Your task to perform on an android device: check battery use Image 0: 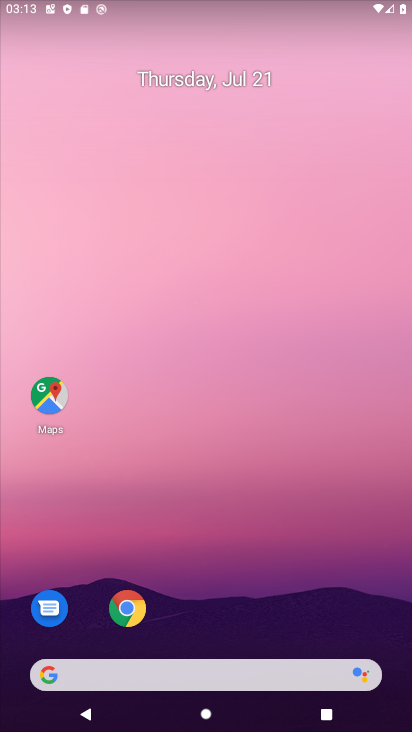
Step 0: drag from (364, 433) to (396, 193)
Your task to perform on an android device: check battery use Image 1: 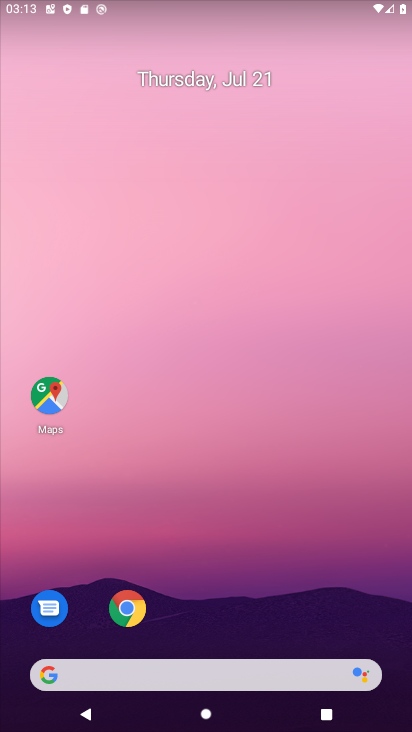
Step 1: drag from (257, 641) to (352, 257)
Your task to perform on an android device: check battery use Image 2: 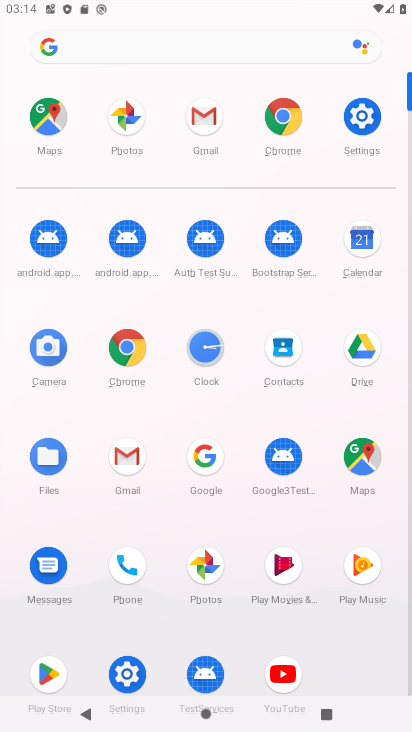
Step 2: click (358, 108)
Your task to perform on an android device: check battery use Image 3: 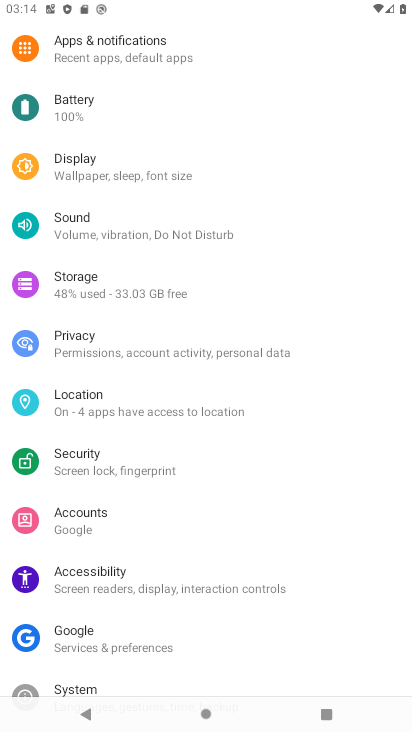
Step 3: drag from (173, 210) to (134, 454)
Your task to perform on an android device: check battery use Image 4: 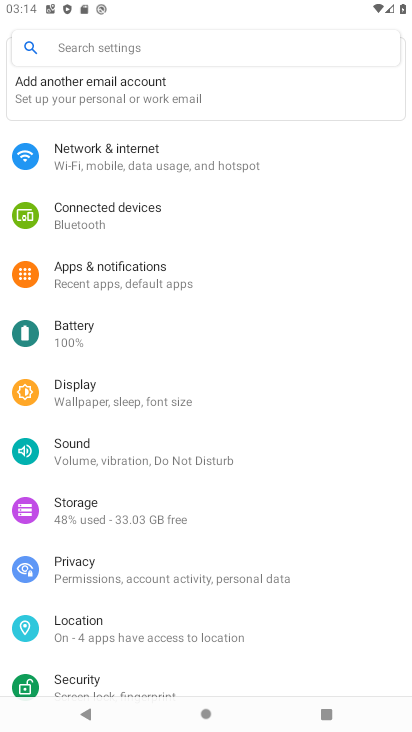
Step 4: click (98, 327)
Your task to perform on an android device: check battery use Image 5: 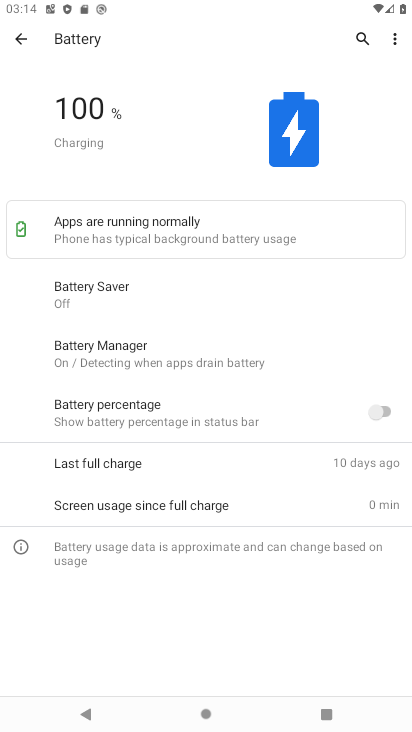
Step 5: task complete